Your task to perform on an android device: toggle notifications settings in the gmail app Image 0: 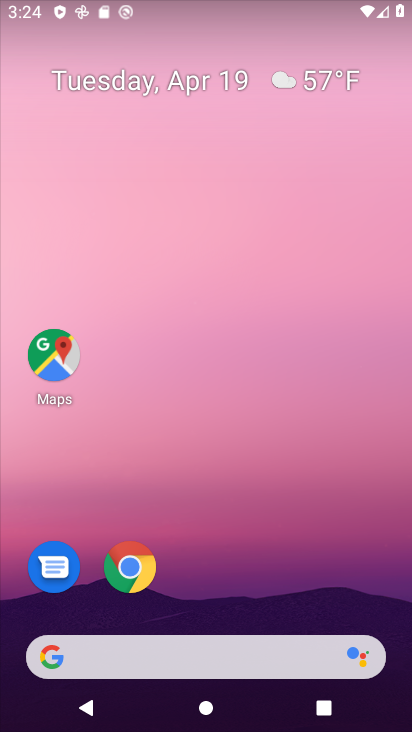
Step 0: drag from (360, 601) to (348, 135)
Your task to perform on an android device: toggle notifications settings in the gmail app Image 1: 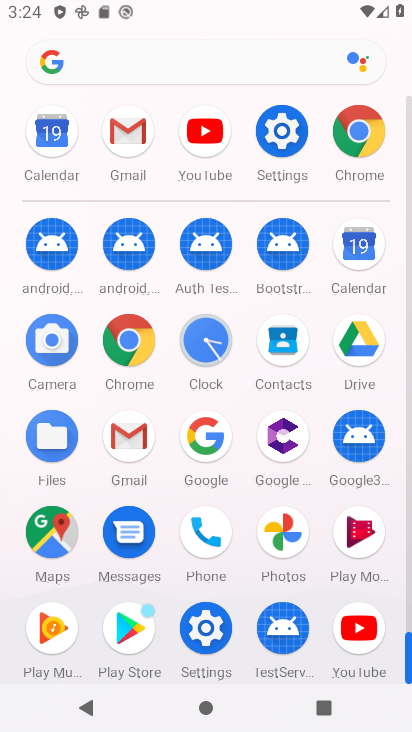
Step 1: click (125, 449)
Your task to perform on an android device: toggle notifications settings in the gmail app Image 2: 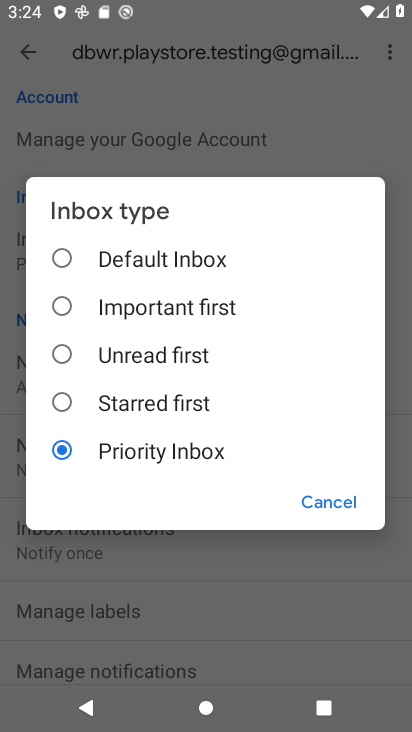
Step 2: click (336, 502)
Your task to perform on an android device: toggle notifications settings in the gmail app Image 3: 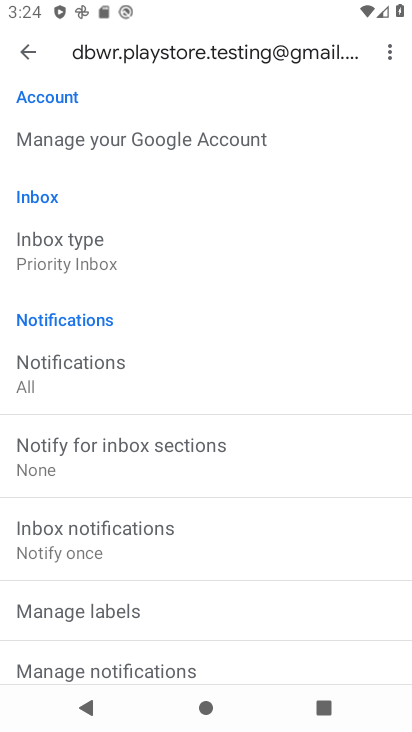
Step 3: drag from (323, 594) to (329, 355)
Your task to perform on an android device: toggle notifications settings in the gmail app Image 4: 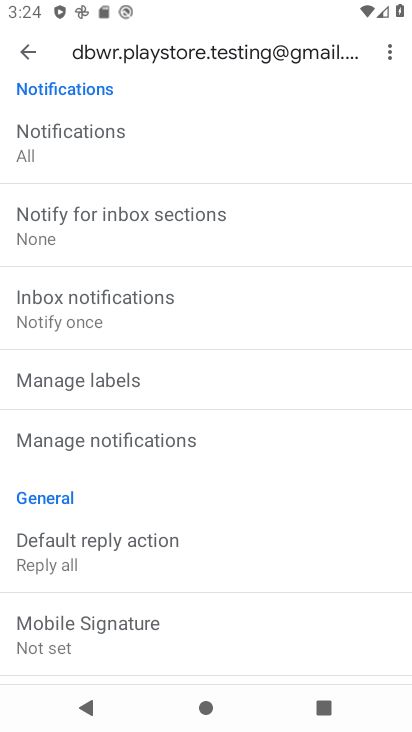
Step 4: drag from (338, 586) to (335, 334)
Your task to perform on an android device: toggle notifications settings in the gmail app Image 5: 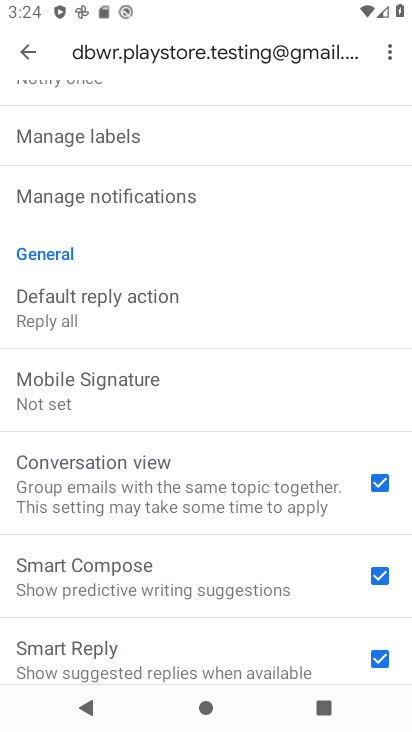
Step 5: drag from (326, 605) to (329, 372)
Your task to perform on an android device: toggle notifications settings in the gmail app Image 6: 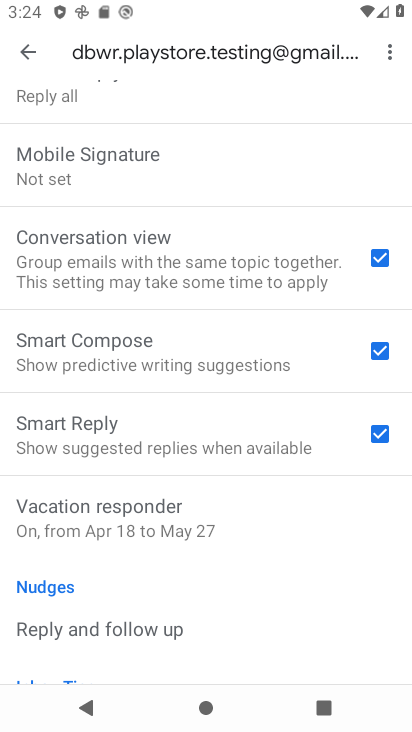
Step 6: drag from (318, 593) to (327, 390)
Your task to perform on an android device: toggle notifications settings in the gmail app Image 7: 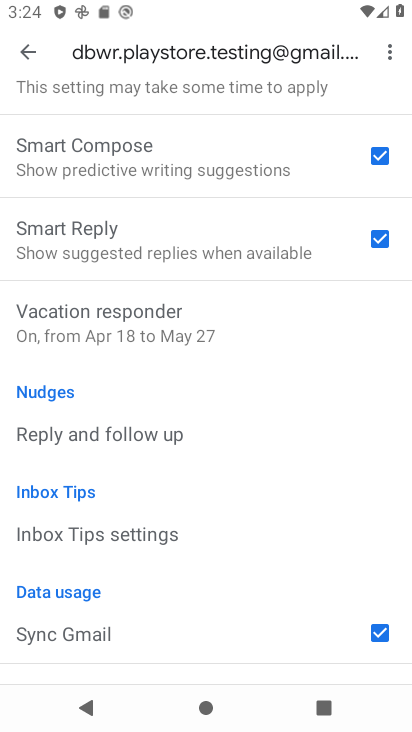
Step 7: drag from (298, 617) to (294, 425)
Your task to perform on an android device: toggle notifications settings in the gmail app Image 8: 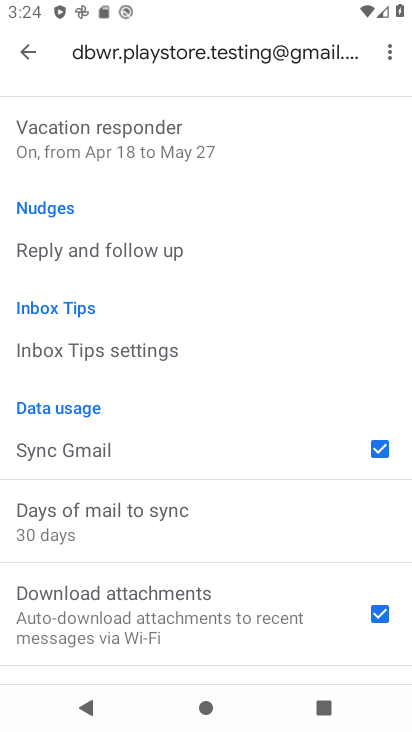
Step 8: drag from (297, 263) to (283, 490)
Your task to perform on an android device: toggle notifications settings in the gmail app Image 9: 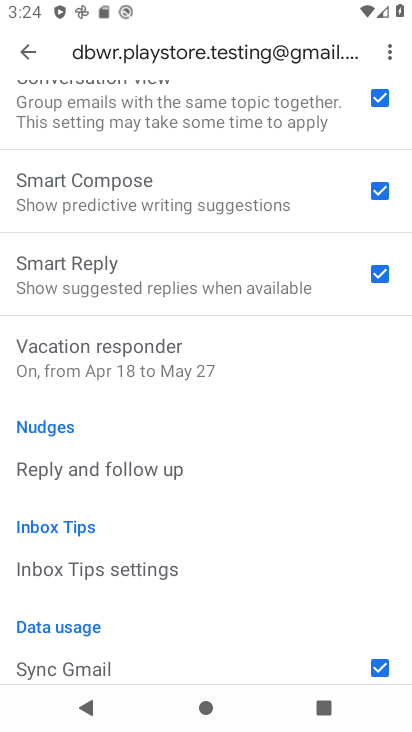
Step 9: drag from (322, 224) to (325, 466)
Your task to perform on an android device: toggle notifications settings in the gmail app Image 10: 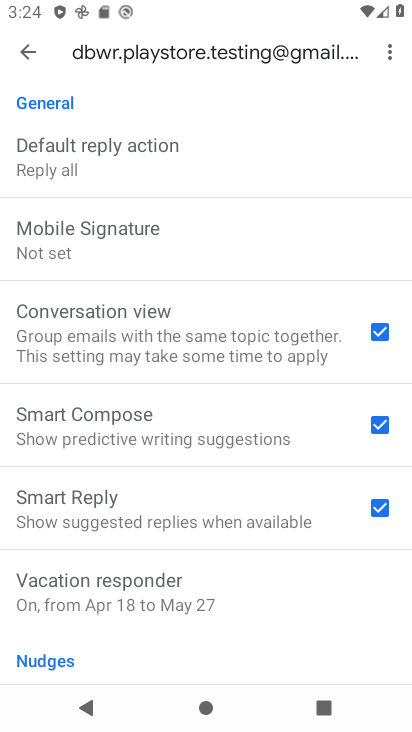
Step 10: drag from (338, 213) to (331, 478)
Your task to perform on an android device: toggle notifications settings in the gmail app Image 11: 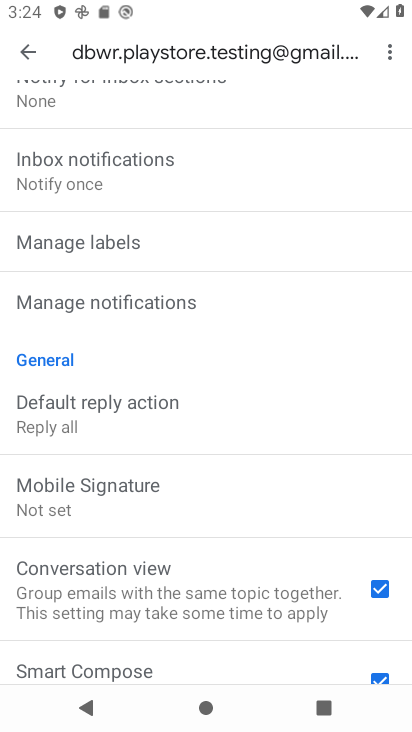
Step 11: click (151, 299)
Your task to perform on an android device: toggle notifications settings in the gmail app Image 12: 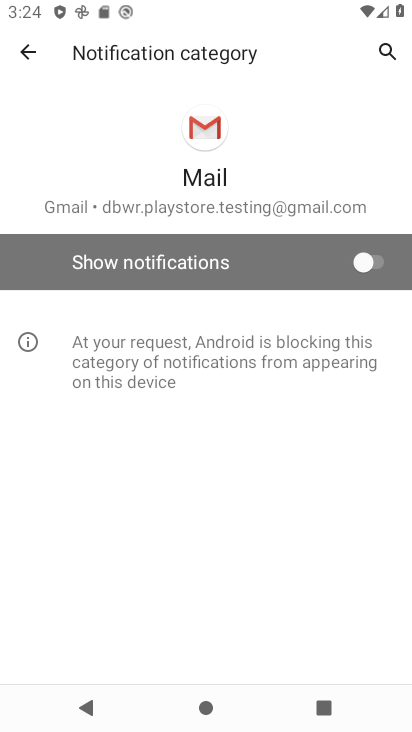
Step 12: click (367, 257)
Your task to perform on an android device: toggle notifications settings in the gmail app Image 13: 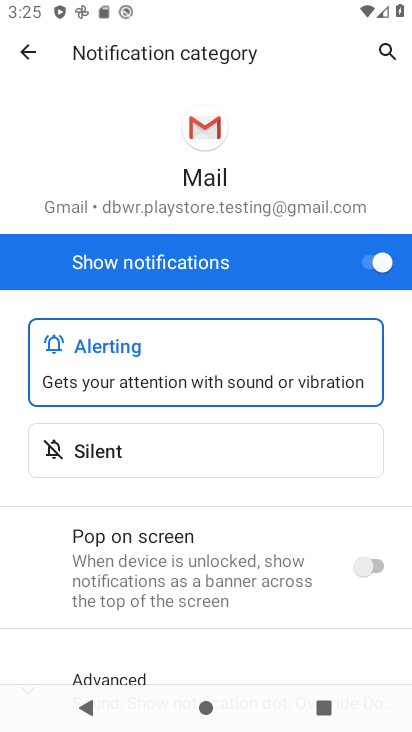
Step 13: task complete